Your task to perform on an android device: Open Google Image 0: 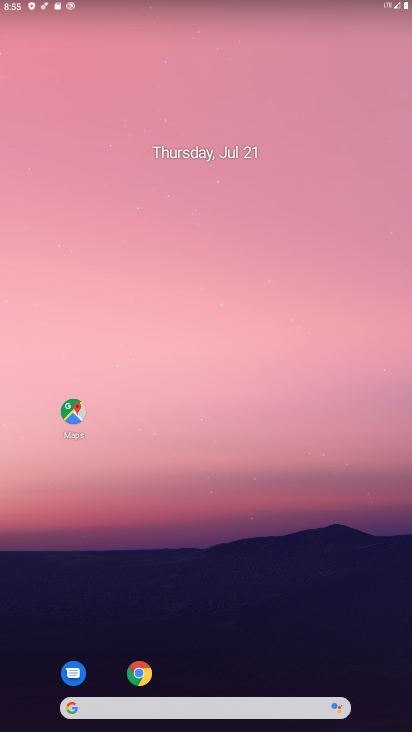
Step 0: drag from (214, 662) to (214, 311)
Your task to perform on an android device: Open Google Image 1: 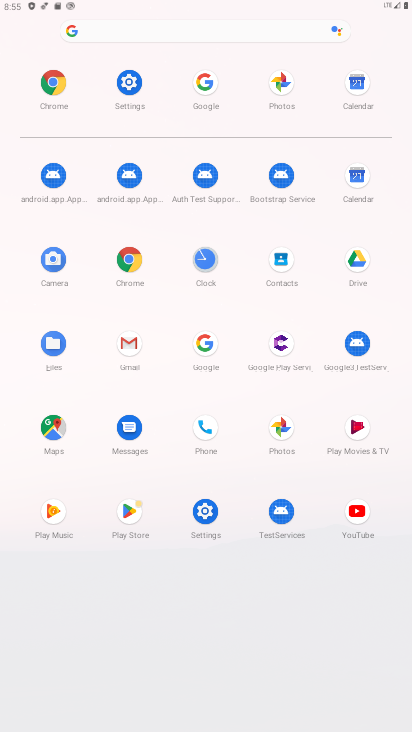
Step 1: click (213, 353)
Your task to perform on an android device: Open Google Image 2: 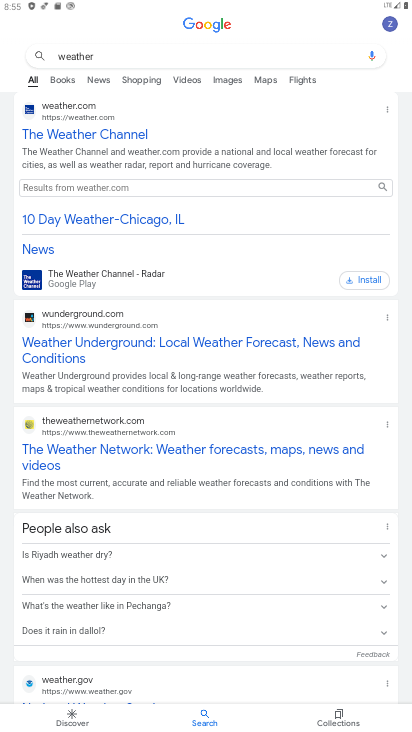
Step 2: task complete